Your task to perform on an android device: Search for usb-c on bestbuy, select the first entry, add it to the cart, then select checkout. Image 0: 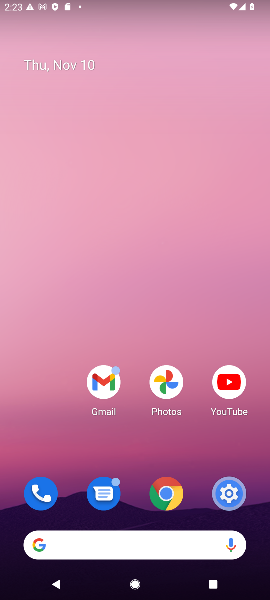
Step 0: drag from (87, 548) to (85, 259)
Your task to perform on an android device: Search for usb-c on bestbuy, select the first entry, add it to the cart, then select checkout. Image 1: 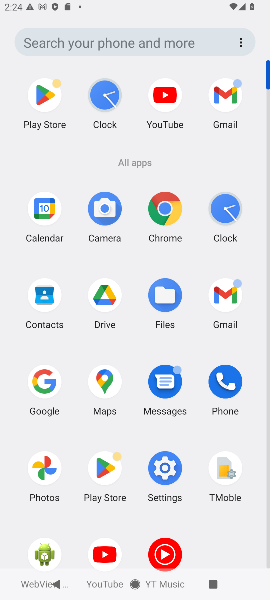
Step 1: click (46, 387)
Your task to perform on an android device: Search for usb-c on bestbuy, select the first entry, add it to the cart, then select checkout. Image 2: 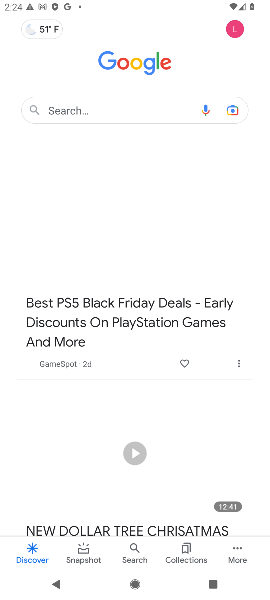
Step 2: click (109, 96)
Your task to perform on an android device: Search for usb-c on bestbuy, select the first entry, add it to the cart, then select checkout. Image 3: 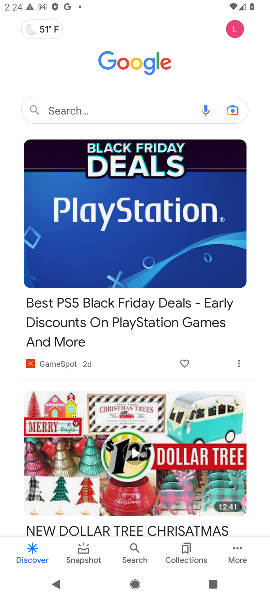
Step 3: type "bestbuy "
Your task to perform on an android device: Search for usb-c on bestbuy, select the first entry, add it to the cart, then select checkout. Image 4: 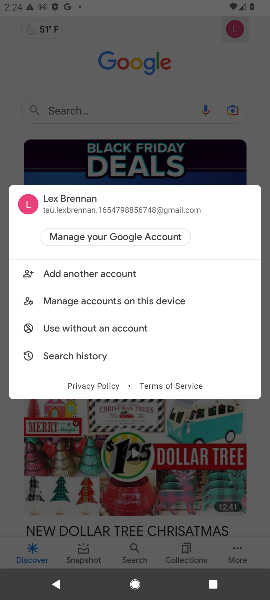
Step 4: click (97, 141)
Your task to perform on an android device: Search for usb-c on bestbuy, select the first entry, add it to the cart, then select checkout. Image 5: 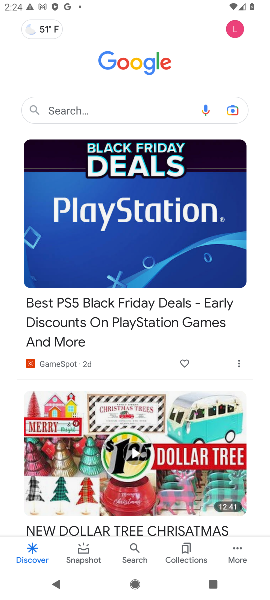
Step 5: click (106, 104)
Your task to perform on an android device: Search for usb-c on bestbuy, select the first entry, add it to the cart, then select checkout. Image 6: 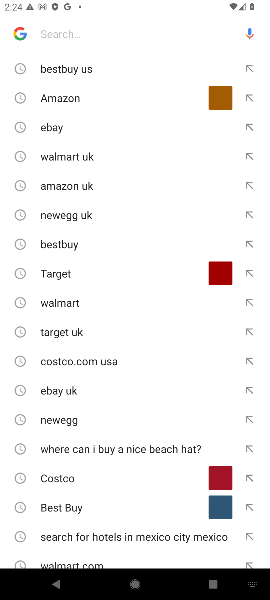
Step 6: type "bestbuy "
Your task to perform on an android device: Search for usb-c on bestbuy, select the first entry, add it to the cart, then select checkout. Image 7: 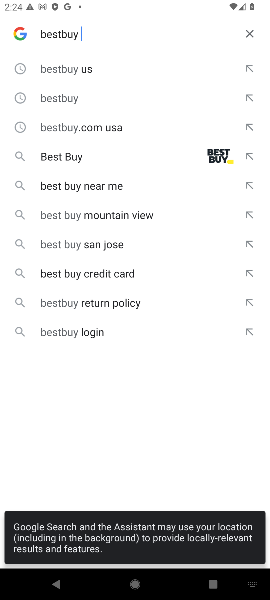
Step 7: click (75, 62)
Your task to perform on an android device: Search for usb-c on bestbuy, select the first entry, add it to the cart, then select checkout. Image 8: 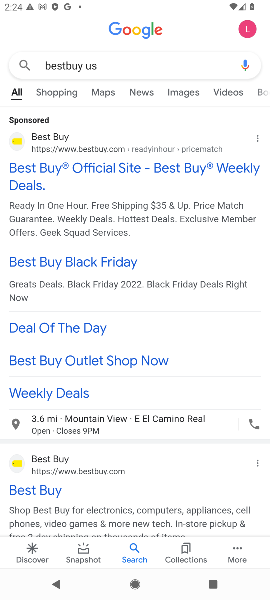
Step 8: click (16, 115)
Your task to perform on an android device: Search for usb-c on bestbuy, select the first entry, add it to the cart, then select checkout. Image 9: 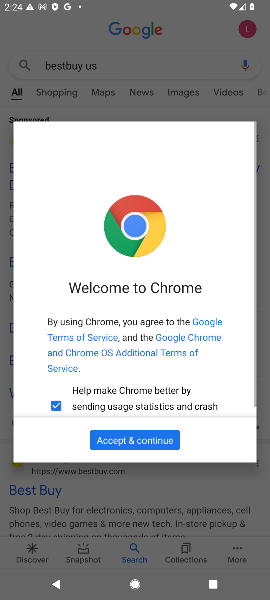
Step 9: click (163, 91)
Your task to perform on an android device: Search for usb-c on bestbuy, select the first entry, add it to the cart, then select checkout. Image 10: 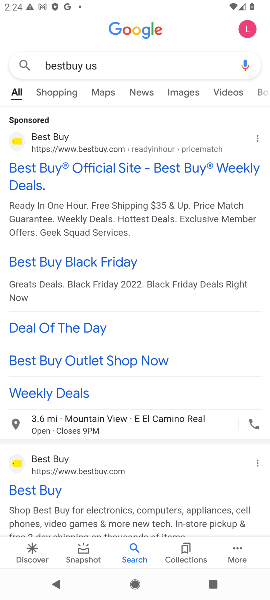
Step 10: click (23, 142)
Your task to perform on an android device: Search for usb-c on bestbuy, select the first entry, add it to the cart, then select checkout. Image 11: 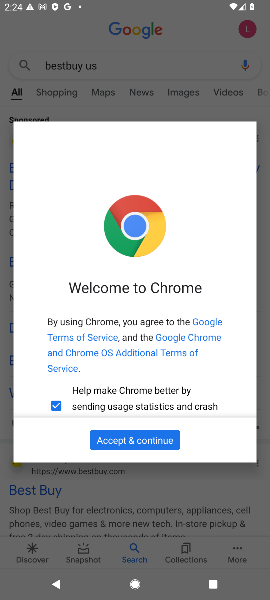
Step 11: click (147, 425)
Your task to perform on an android device: Search for usb-c on bestbuy, select the first entry, add it to the cart, then select checkout. Image 12: 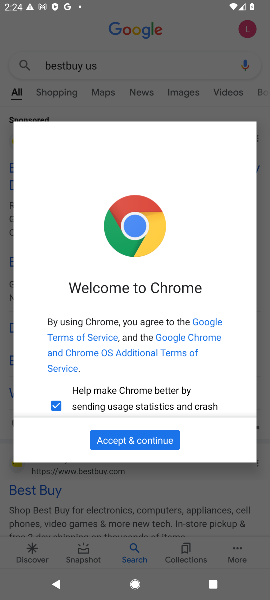
Step 12: click (146, 430)
Your task to perform on an android device: Search for usb-c on bestbuy, select the first entry, add it to the cart, then select checkout. Image 13: 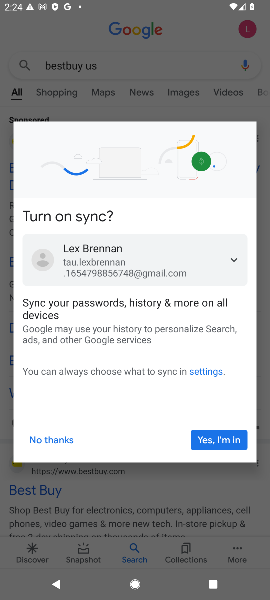
Step 13: click (215, 438)
Your task to perform on an android device: Search for usb-c on bestbuy, select the first entry, add it to the cart, then select checkout. Image 14: 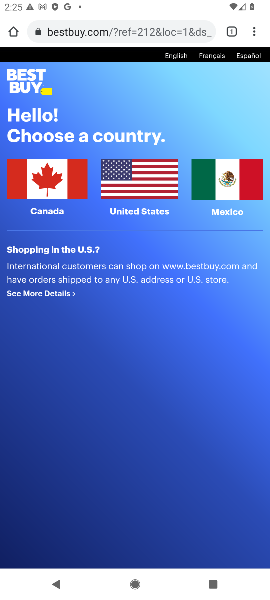
Step 14: click (134, 178)
Your task to perform on an android device: Search for usb-c on bestbuy, select the first entry, add it to the cart, then select checkout. Image 15: 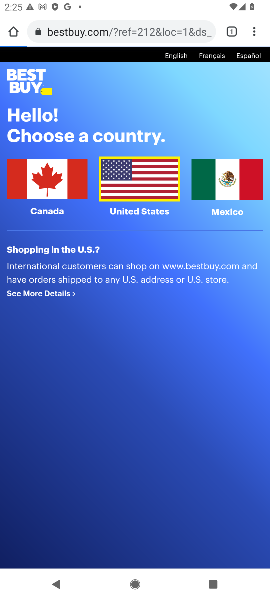
Step 15: click (134, 178)
Your task to perform on an android device: Search for usb-c on bestbuy, select the first entry, add it to the cart, then select checkout. Image 16: 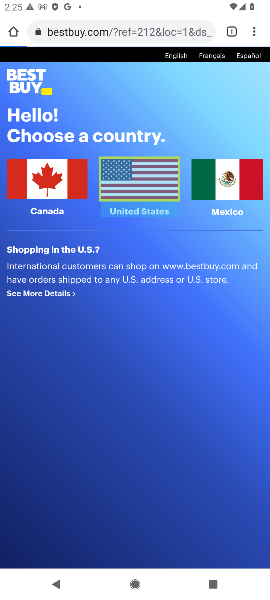
Step 16: click (134, 178)
Your task to perform on an android device: Search for usb-c on bestbuy, select the first entry, add it to the cart, then select checkout. Image 17: 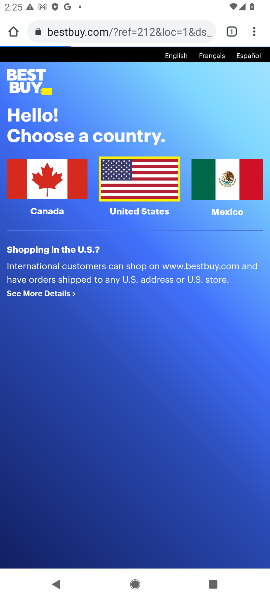
Step 17: click (134, 178)
Your task to perform on an android device: Search for usb-c on bestbuy, select the first entry, add it to the cart, then select checkout. Image 18: 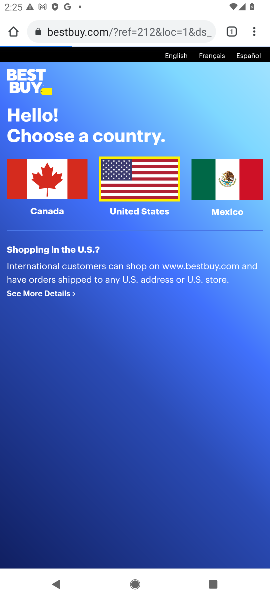
Step 18: click (134, 178)
Your task to perform on an android device: Search for usb-c on bestbuy, select the first entry, add it to the cart, then select checkout. Image 19: 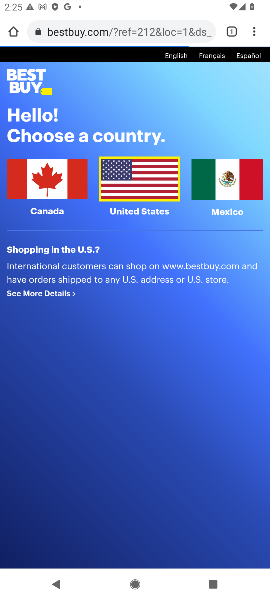
Step 19: click (134, 178)
Your task to perform on an android device: Search for usb-c on bestbuy, select the first entry, add it to the cart, then select checkout. Image 20: 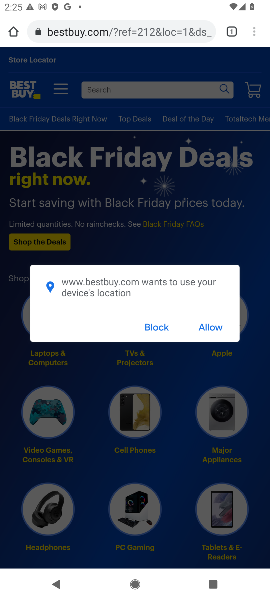
Step 20: click (215, 327)
Your task to perform on an android device: Search for usb-c on bestbuy, select the first entry, add it to the cart, then select checkout. Image 21: 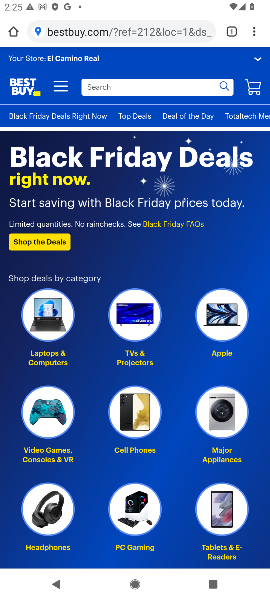
Step 21: click (168, 81)
Your task to perform on an android device: Search for usb-c on bestbuy, select the first entry, add it to the cart, then select checkout. Image 22: 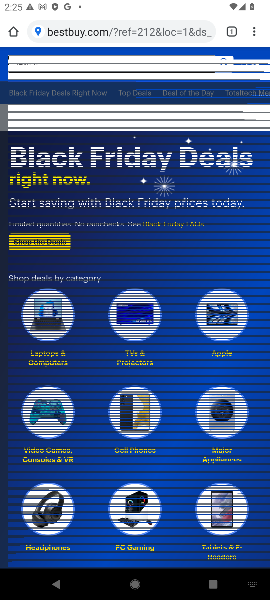
Step 22: type " usb-c  "
Your task to perform on an android device: Search for usb-c on bestbuy, select the first entry, add it to the cart, then select checkout. Image 23: 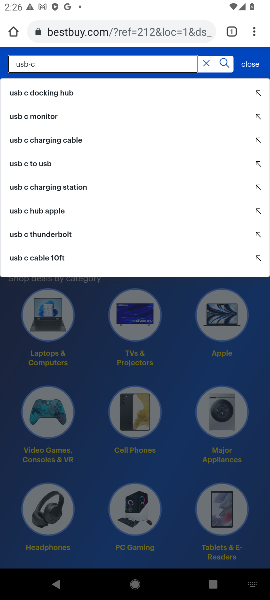
Step 23: click (221, 68)
Your task to perform on an android device: Search for usb-c on bestbuy, select the first entry, add it to the cart, then select checkout. Image 24: 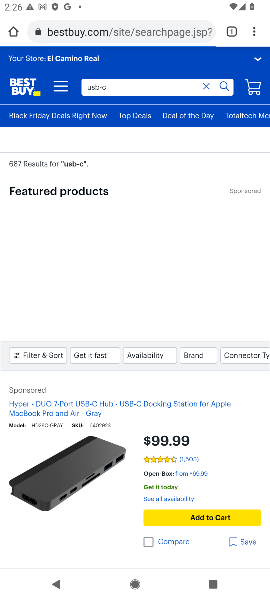
Step 24: drag from (135, 510) to (184, 168)
Your task to perform on an android device: Search for usb-c on bestbuy, select the first entry, add it to the cart, then select checkout. Image 25: 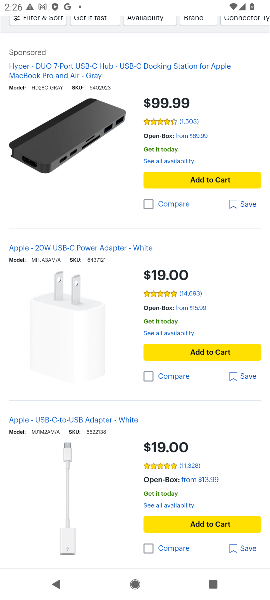
Step 25: click (194, 522)
Your task to perform on an android device: Search for usb-c on bestbuy, select the first entry, add it to the cart, then select checkout. Image 26: 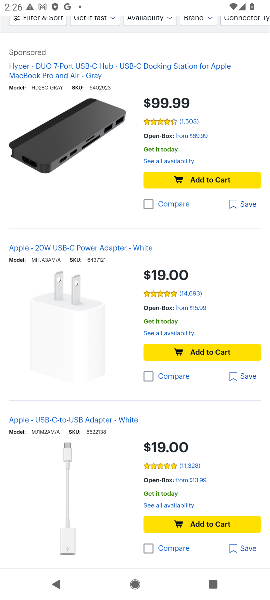
Step 26: click (212, 520)
Your task to perform on an android device: Search for usb-c on bestbuy, select the first entry, add it to the cart, then select checkout. Image 27: 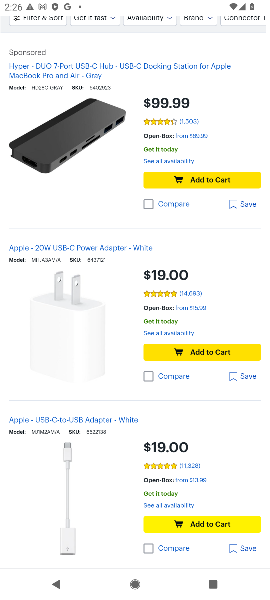
Step 27: task complete